Your task to perform on an android device: all mails in gmail Image 0: 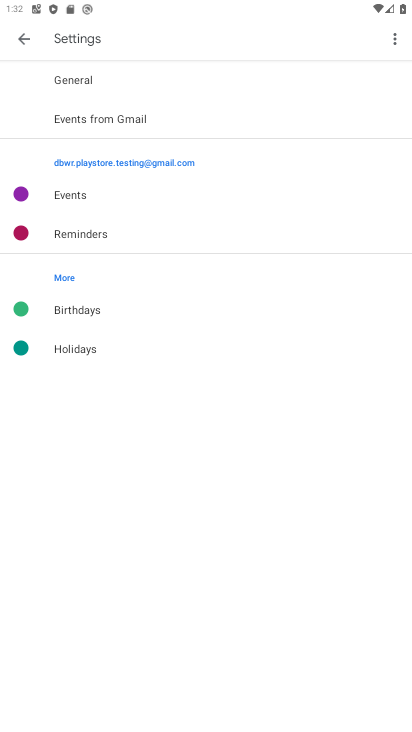
Step 0: press back button
Your task to perform on an android device: all mails in gmail Image 1: 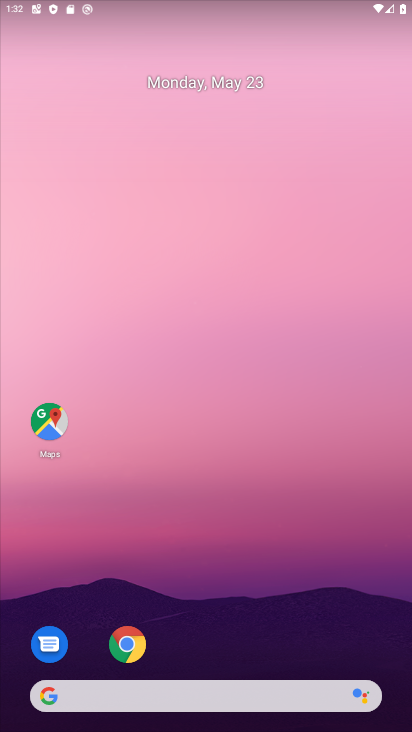
Step 1: drag from (212, 445) to (189, 13)
Your task to perform on an android device: all mails in gmail Image 2: 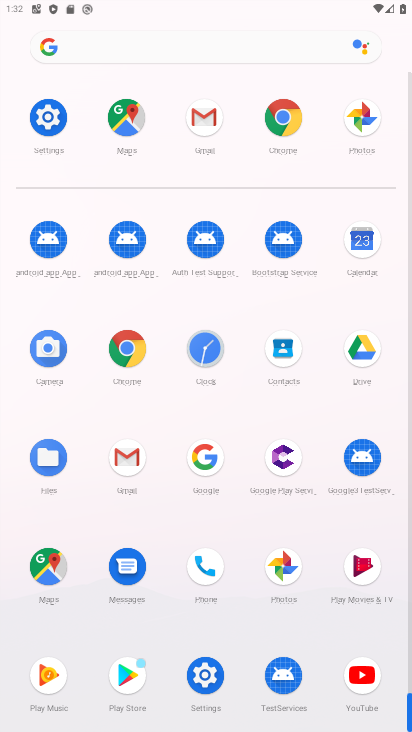
Step 2: drag from (10, 609) to (16, 239)
Your task to perform on an android device: all mails in gmail Image 3: 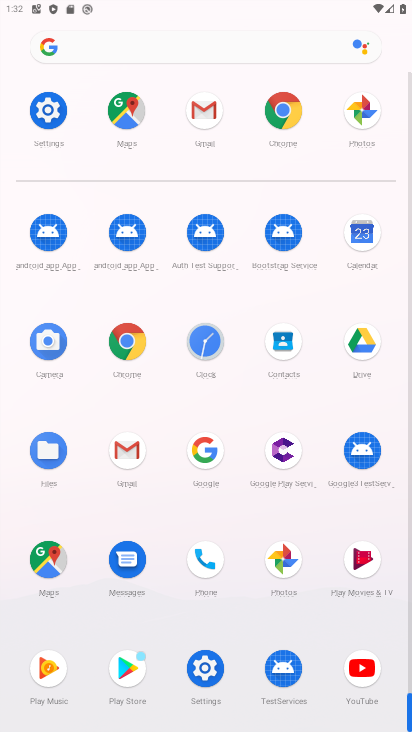
Step 3: click (127, 441)
Your task to perform on an android device: all mails in gmail Image 4: 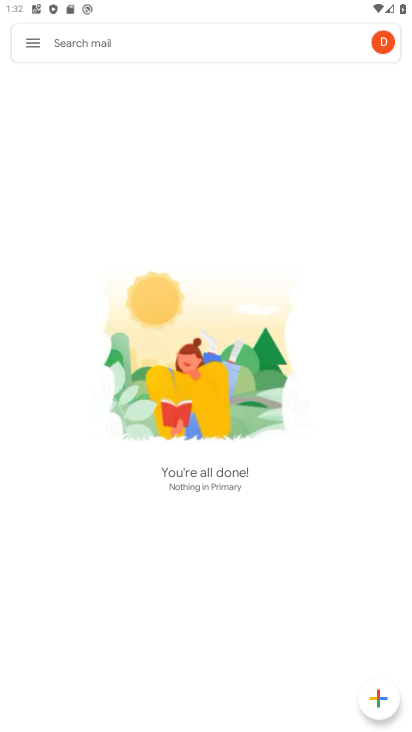
Step 4: click (32, 43)
Your task to perform on an android device: all mails in gmail Image 5: 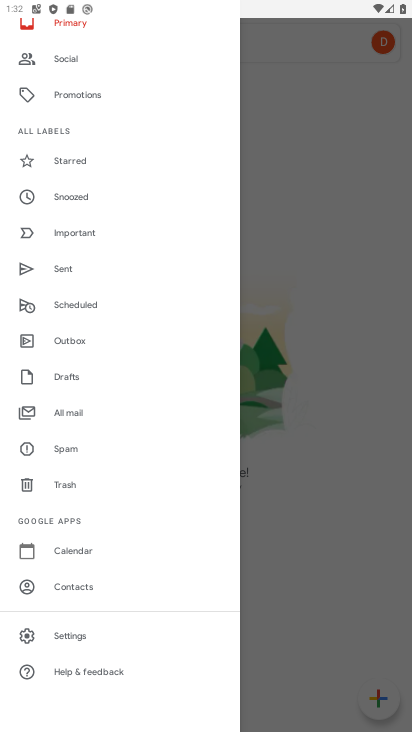
Step 5: click (83, 411)
Your task to perform on an android device: all mails in gmail Image 6: 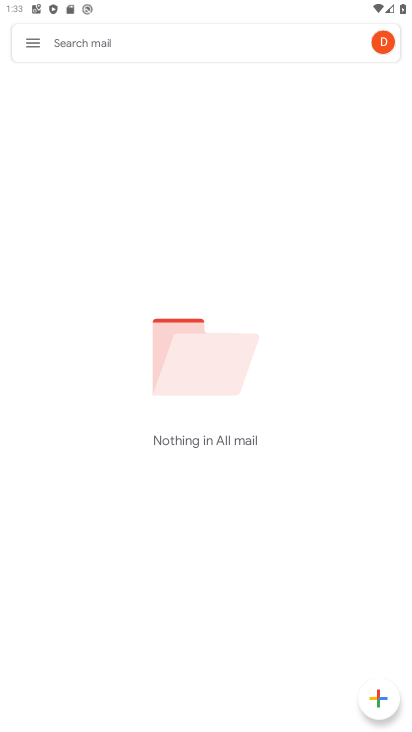
Step 6: task complete